Your task to perform on an android device: Go to calendar. Show me events next week Image 0: 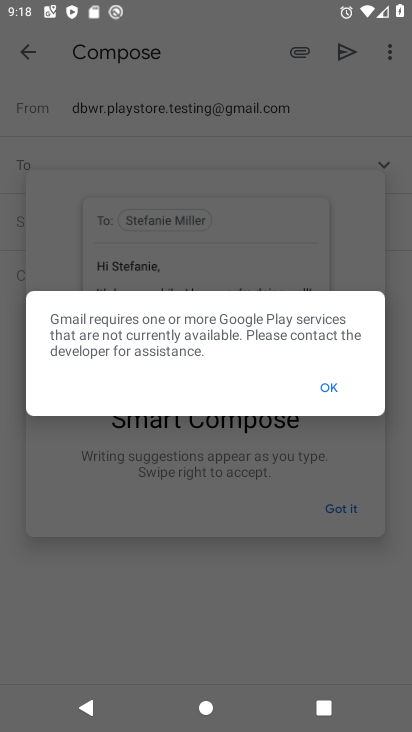
Step 0: press home button
Your task to perform on an android device: Go to calendar. Show me events next week Image 1: 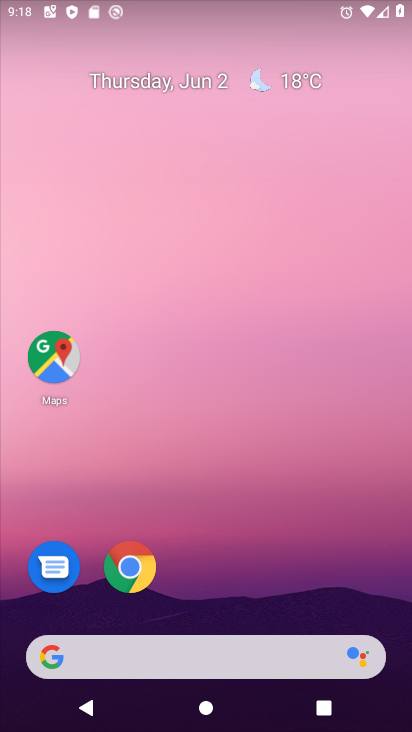
Step 1: drag from (207, 598) to (231, 259)
Your task to perform on an android device: Go to calendar. Show me events next week Image 2: 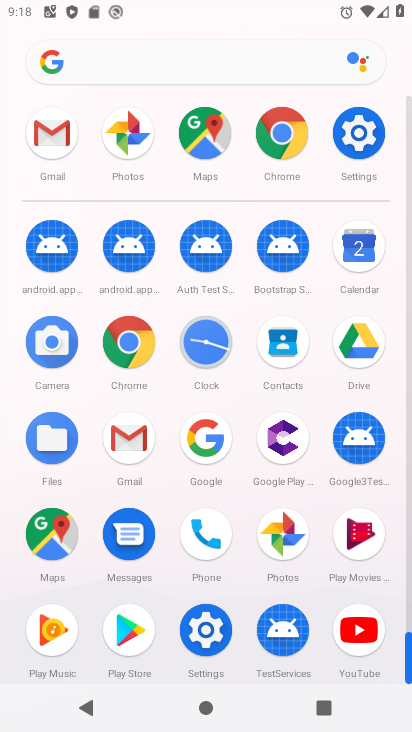
Step 2: click (355, 261)
Your task to perform on an android device: Go to calendar. Show me events next week Image 3: 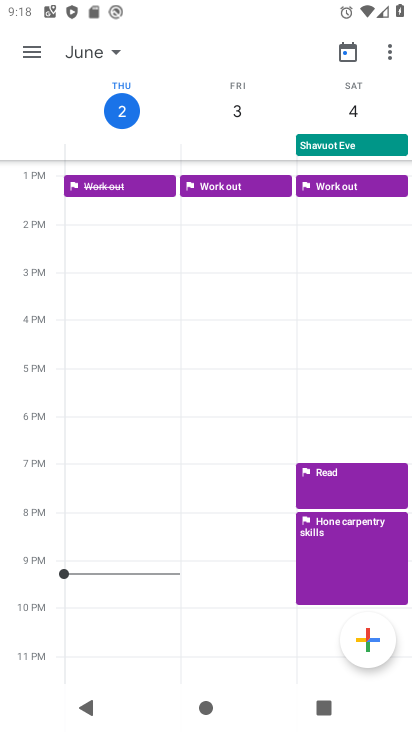
Step 3: click (37, 48)
Your task to perform on an android device: Go to calendar. Show me events next week Image 4: 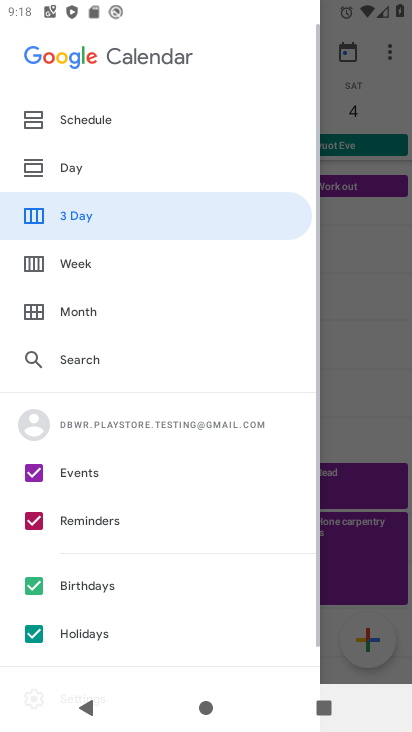
Step 4: click (72, 517)
Your task to perform on an android device: Go to calendar. Show me events next week Image 5: 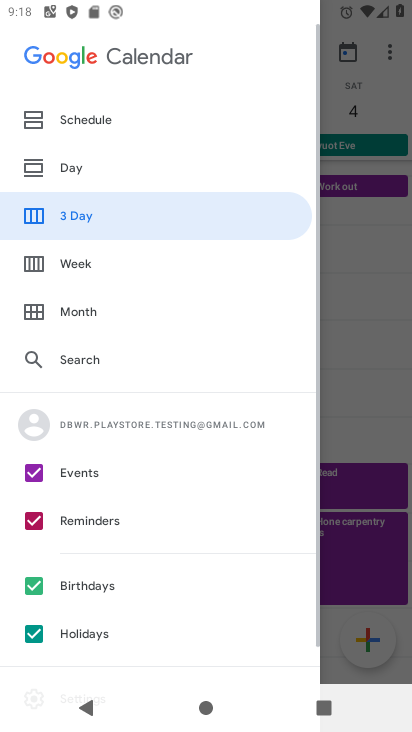
Step 5: click (69, 591)
Your task to perform on an android device: Go to calendar. Show me events next week Image 6: 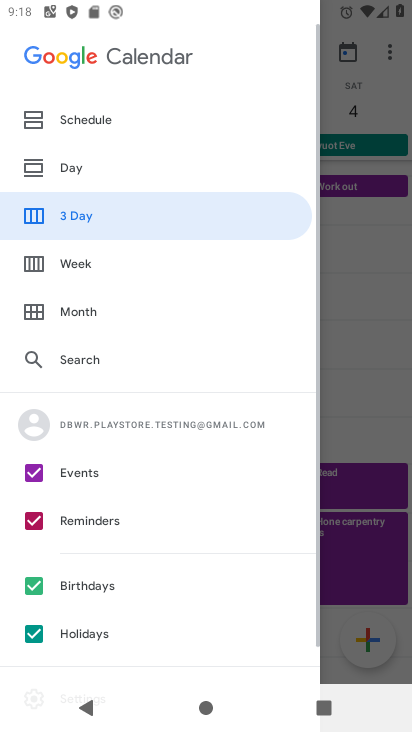
Step 6: click (71, 632)
Your task to perform on an android device: Go to calendar. Show me events next week Image 7: 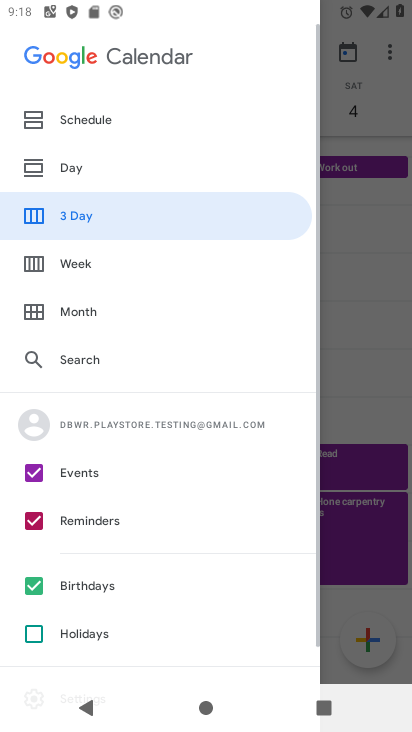
Step 7: click (70, 588)
Your task to perform on an android device: Go to calendar. Show me events next week Image 8: 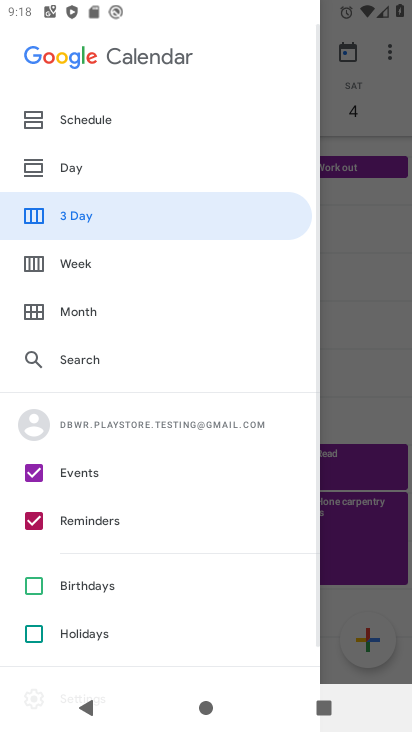
Step 8: click (69, 517)
Your task to perform on an android device: Go to calendar. Show me events next week Image 9: 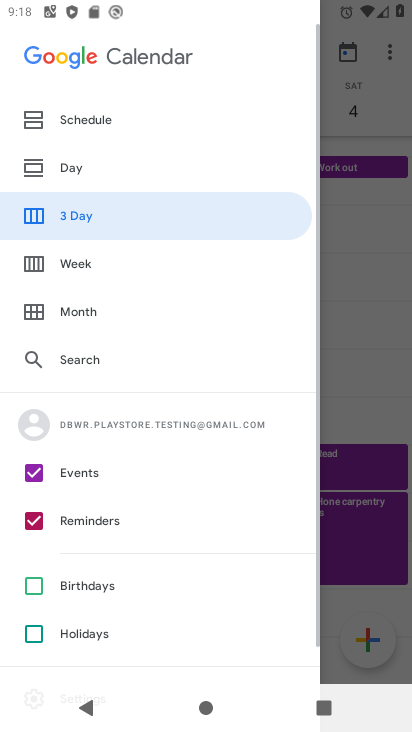
Step 9: click (33, 524)
Your task to perform on an android device: Go to calendar. Show me events next week Image 10: 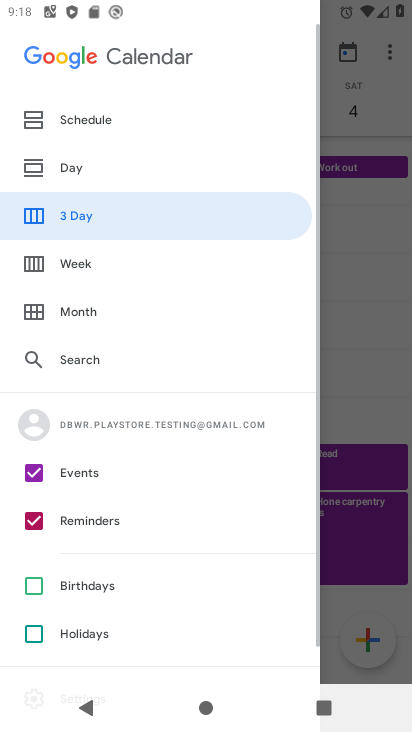
Step 10: click (35, 524)
Your task to perform on an android device: Go to calendar. Show me events next week Image 11: 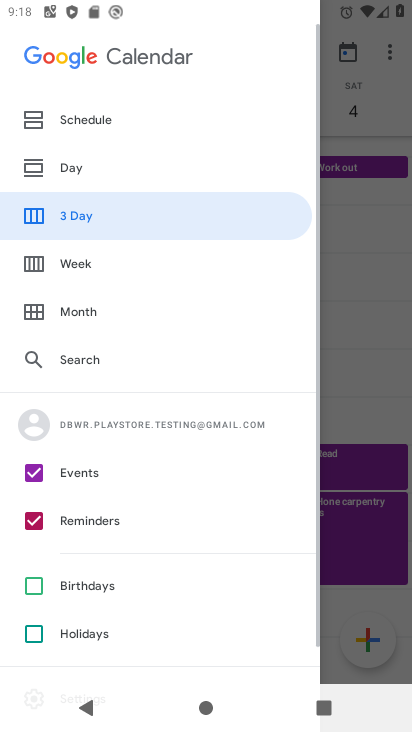
Step 11: click (79, 525)
Your task to perform on an android device: Go to calendar. Show me events next week Image 12: 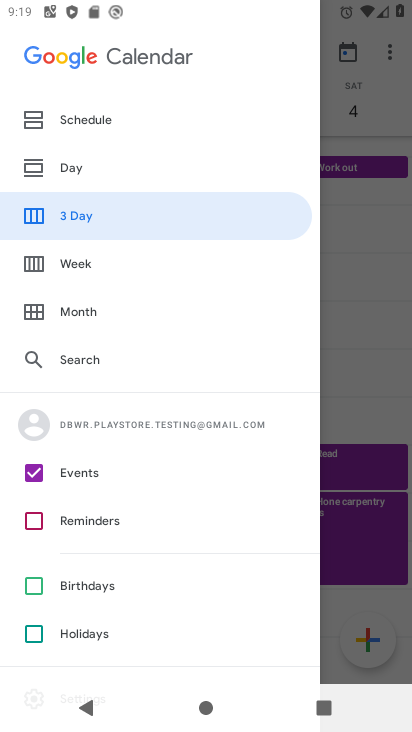
Step 12: click (86, 271)
Your task to perform on an android device: Go to calendar. Show me events next week Image 13: 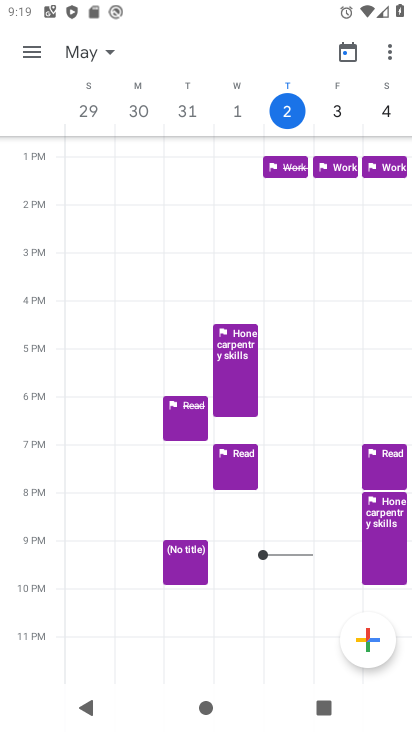
Step 13: task complete